Your task to perform on an android device: Check the news Image 0: 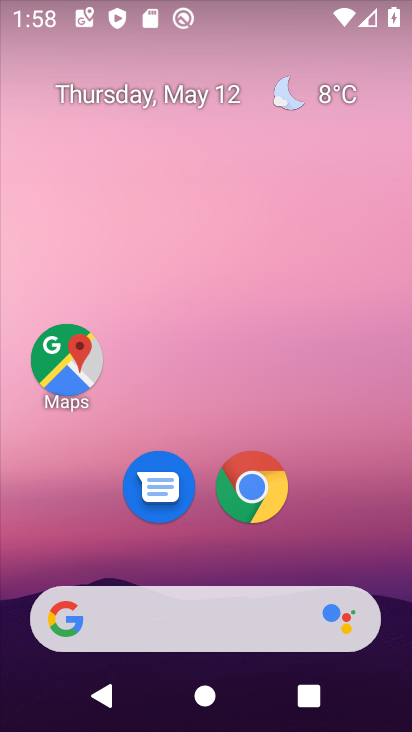
Step 0: click (171, 617)
Your task to perform on an android device: Check the news Image 1: 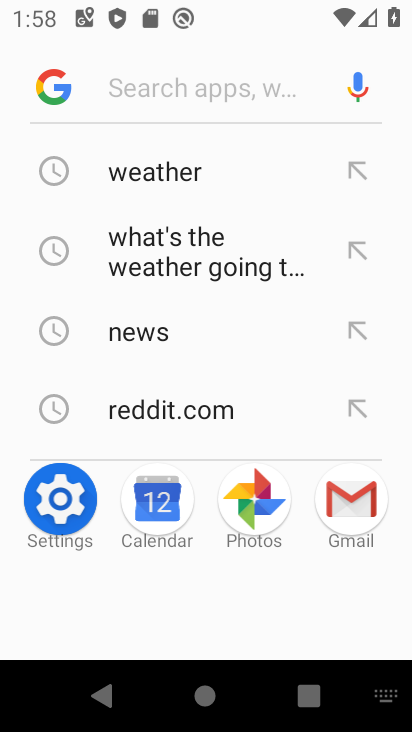
Step 1: type "news"
Your task to perform on an android device: Check the news Image 2: 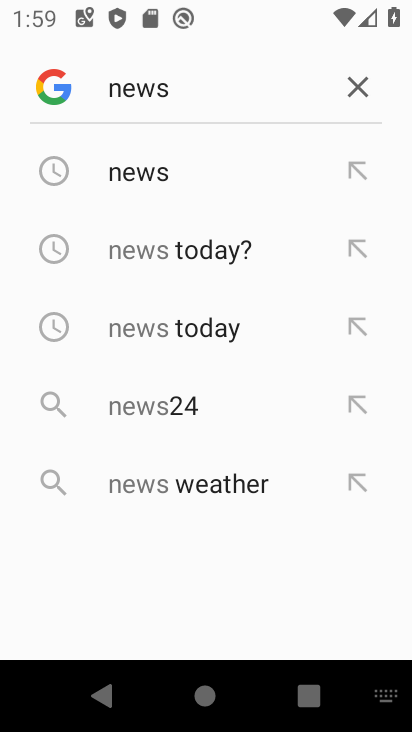
Step 2: click (164, 158)
Your task to perform on an android device: Check the news Image 3: 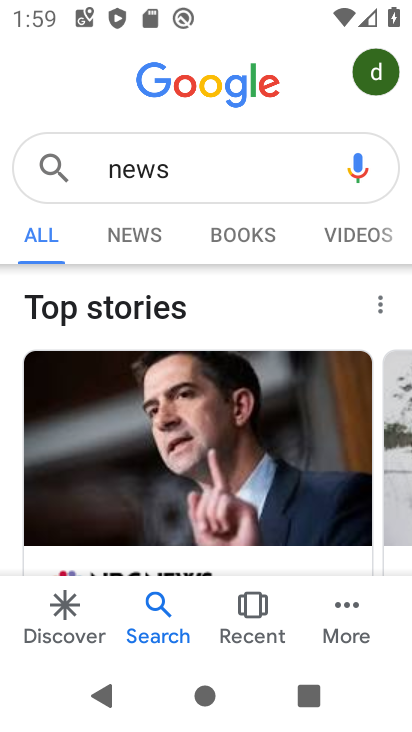
Step 3: click (135, 225)
Your task to perform on an android device: Check the news Image 4: 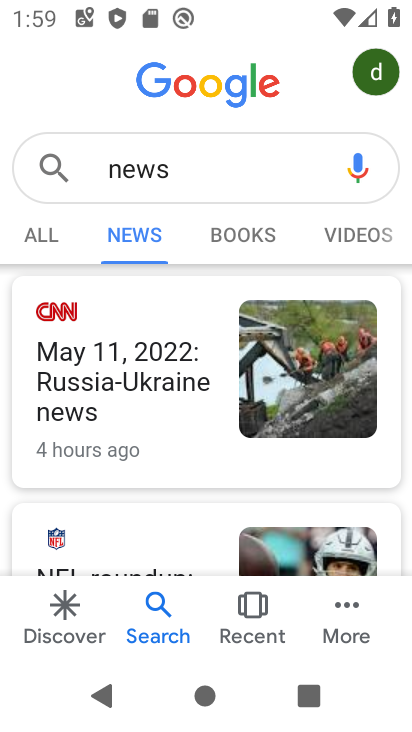
Step 4: task complete